Your task to perform on an android device: change the clock display to show seconds Image 0: 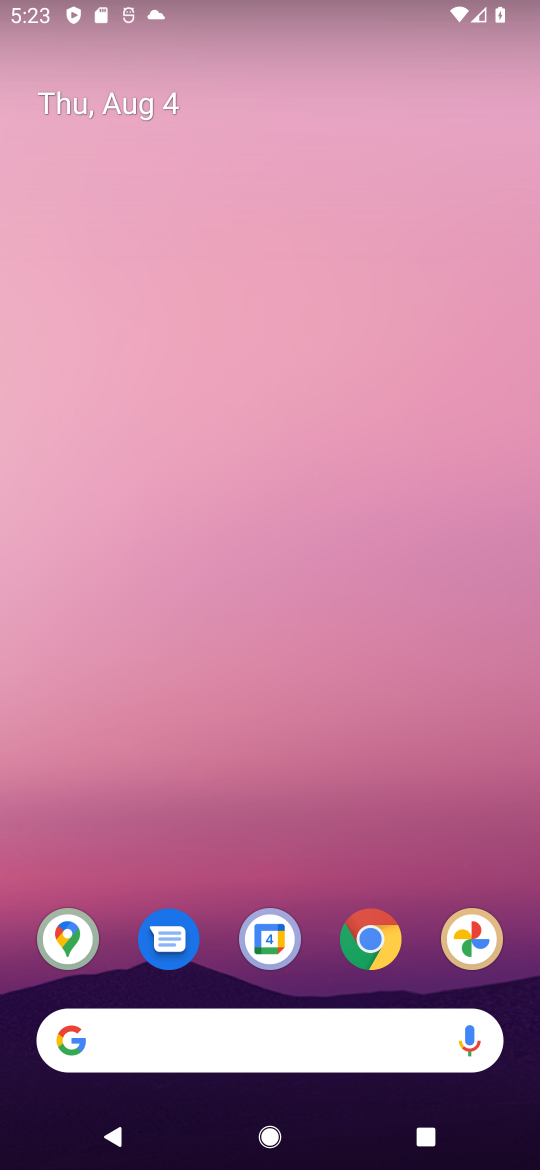
Step 0: drag from (258, 927) to (312, 391)
Your task to perform on an android device: change the clock display to show seconds Image 1: 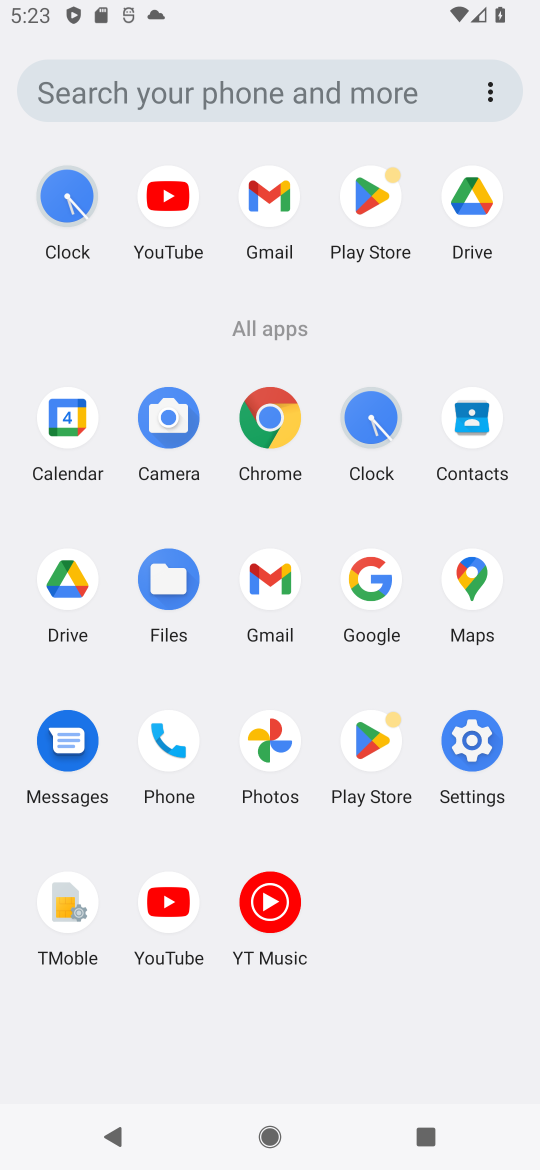
Step 1: click (380, 421)
Your task to perform on an android device: change the clock display to show seconds Image 2: 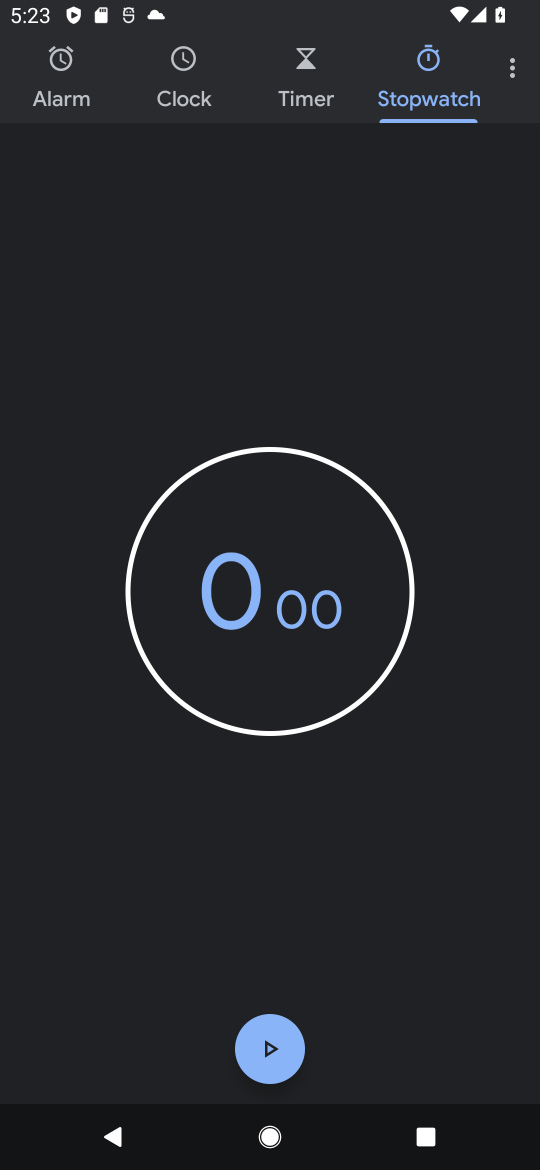
Step 2: click (513, 74)
Your task to perform on an android device: change the clock display to show seconds Image 3: 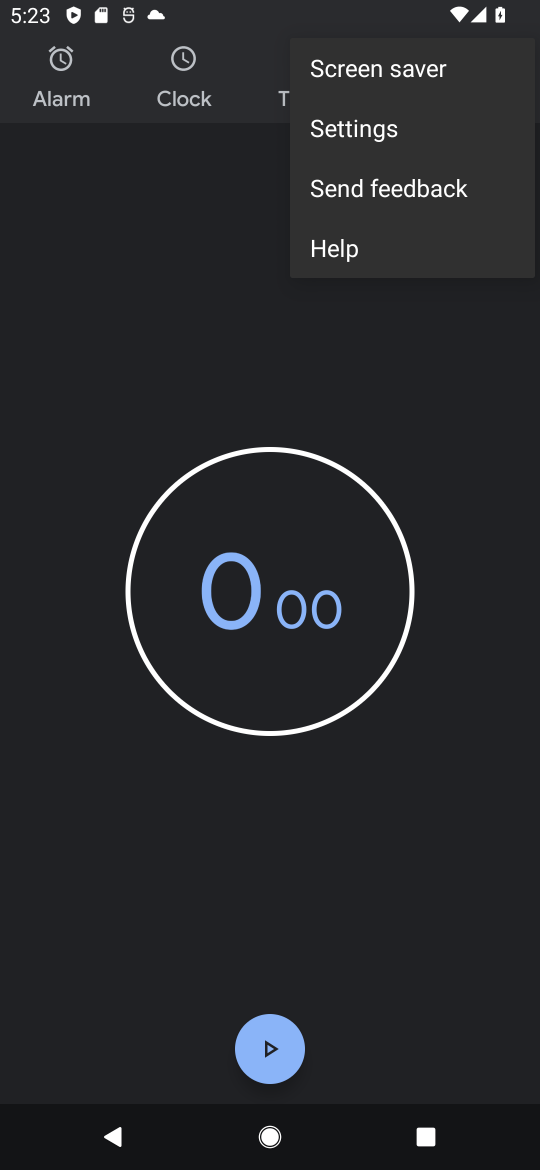
Step 3: click (395, 134)
Your task to perform on an android device: change the clock display to show seconds Image 4: 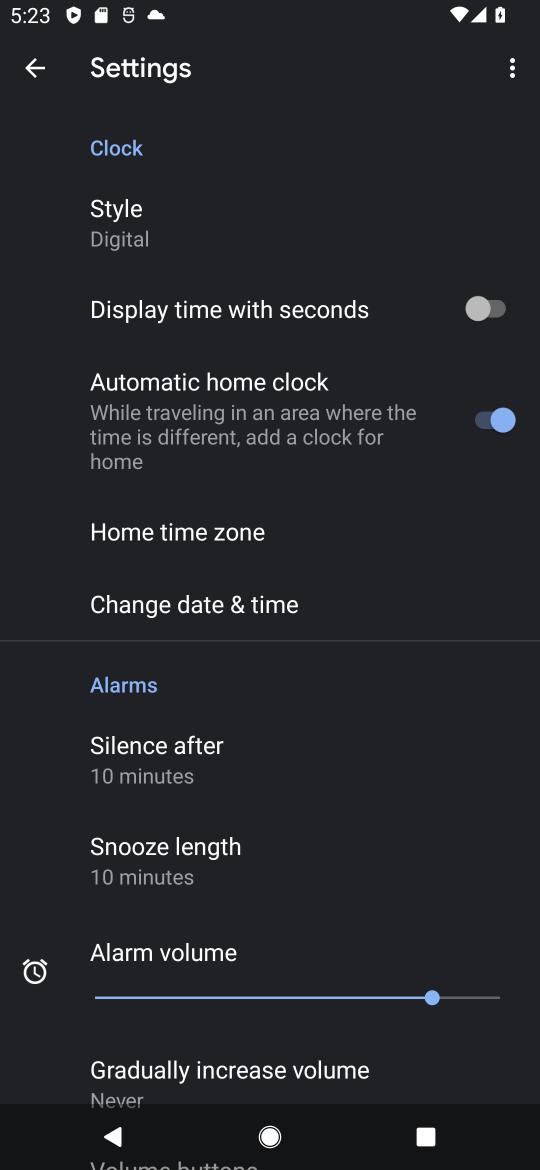
Step 4: click (495, 308)
Your task to perform on an android device: change the clock display to show seconds Image 5: 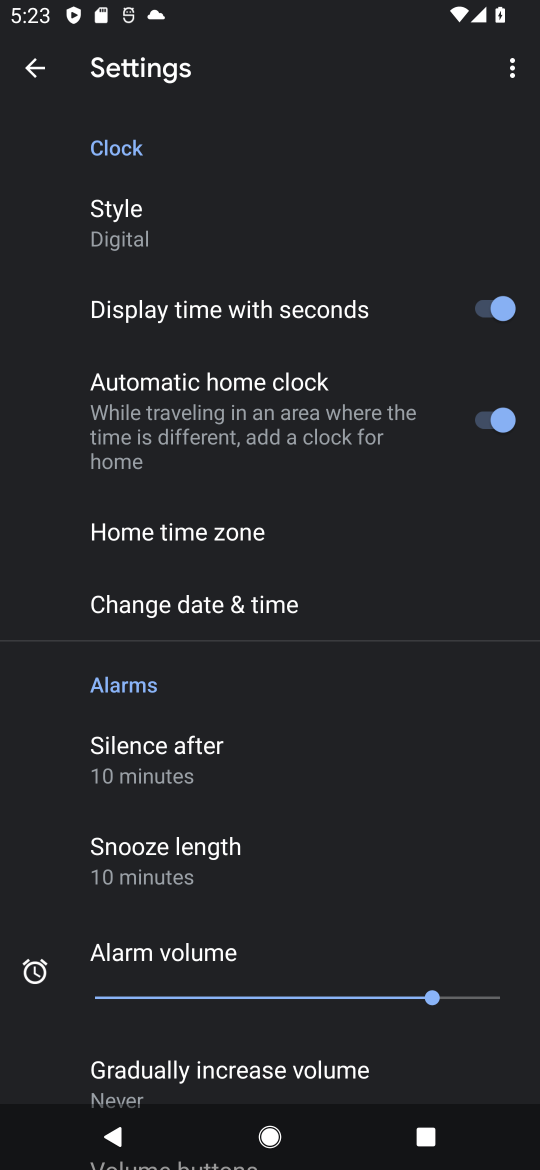
Step 5: task complete